Your task to perform on an android device: turn off improve location accuracy Image 0: 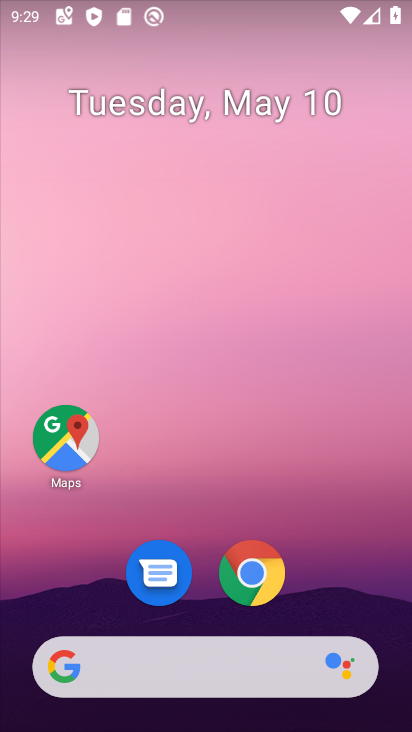
Step 0: drag from (314, 541) to (225, 60)
Your task to perform on an android device: turn off improve location accuracy Image 1: 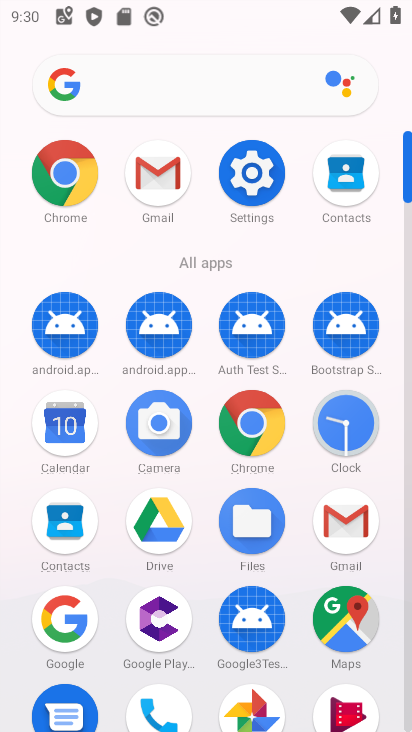
Step 1: click (249, 171)
Your task to perform on an android device: turn off improve location accuracy Image 2: 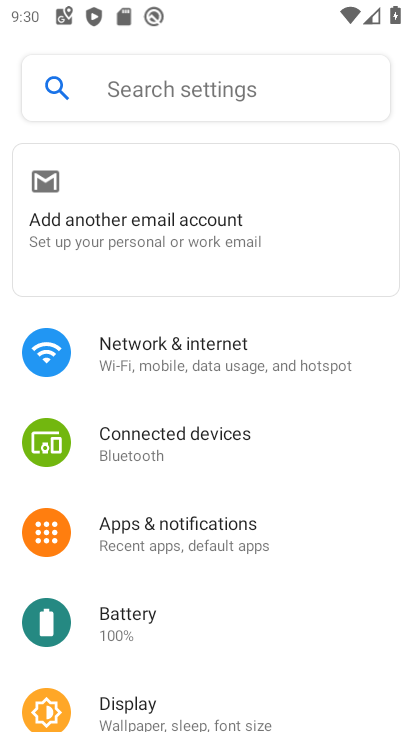
Step 2: drag from (252, 593) to (201, 374)
Your task to perform on an android device: turn off improve location accuracy Image 3: 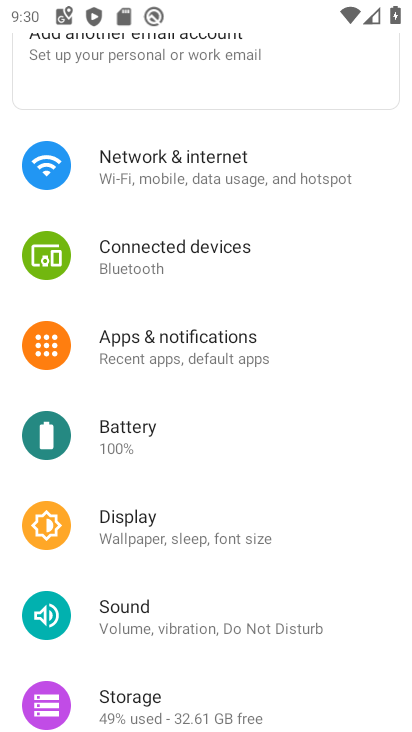
Step 3: drag from (223, 578) to (174, 324)
Your task to perform on an android device: turn off improve location accuracy Image 4: 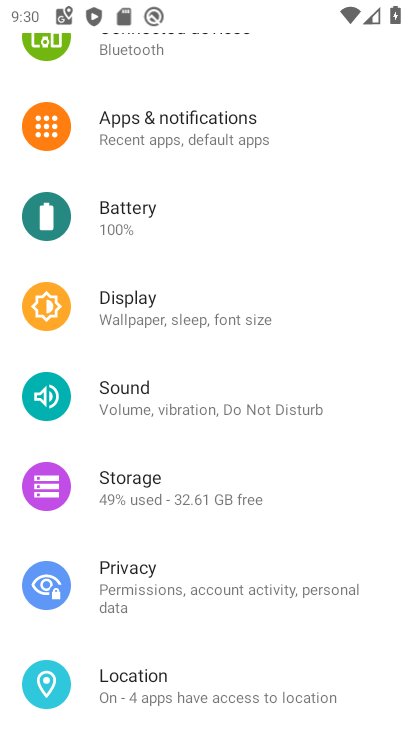
Step 4: drag from (151, 651) to (107, 439)
Your task to perform on an android device: turn off improve location accuracy Image 5: 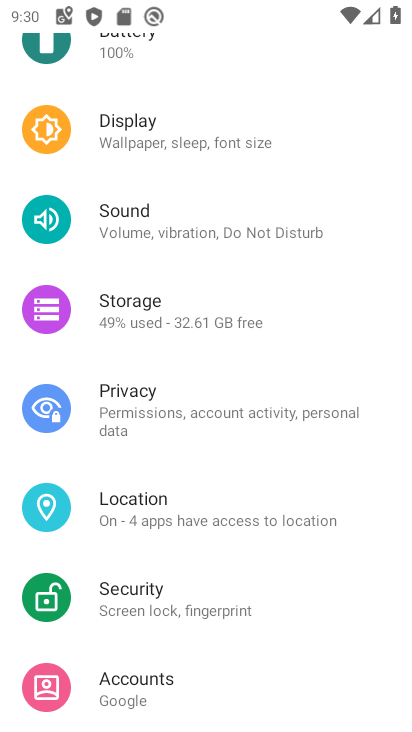
Step 5: click (119, 497)
Your task to perform on an android device: turn off improve location accuracy Image 6: 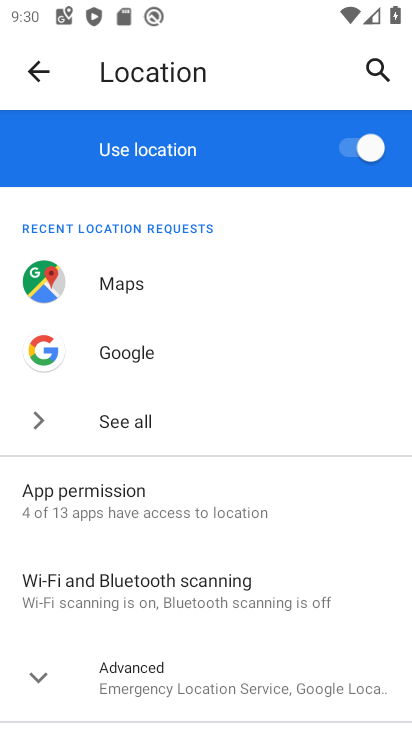
Step 6: drag from (229, 545) to (167, 349)
Your task to perform on an android device: turn off improve location accuracy Image 7: 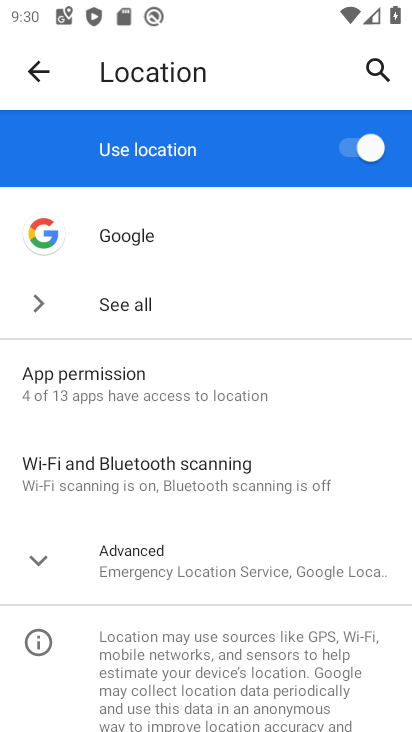
Step 7: click (44, 555)
Your task to perform on an android device: turn off improve location accuracy Image 8: 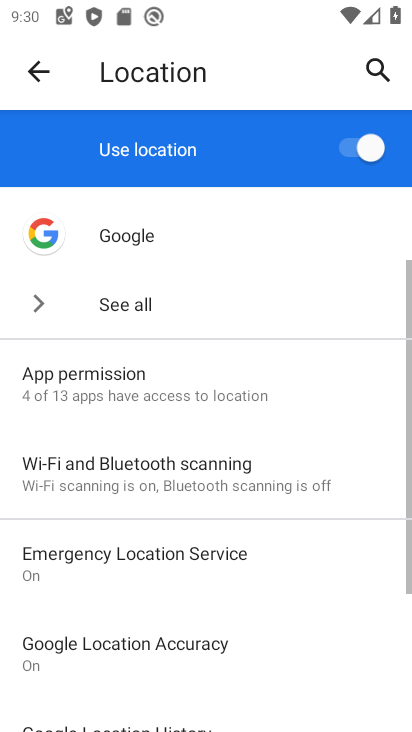
Step 8: drag from (215, 549) to (180, 324)
Your task to perform on an android device: turn off improve location accuracy Image 9: 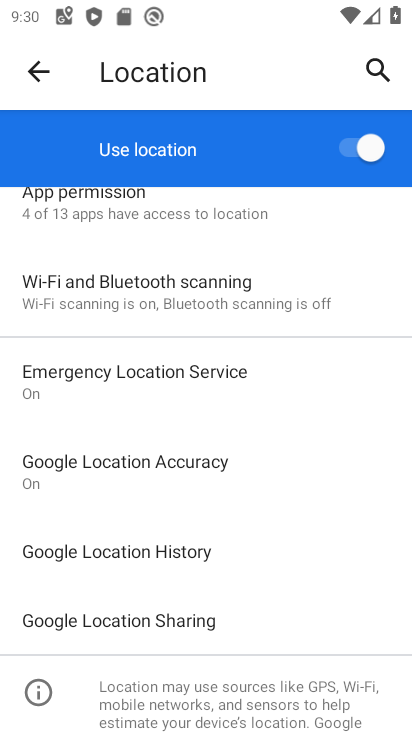
Step 9: click (179, 459)
Your task to perform on an android device: turn off improve location accuracy Image 10: 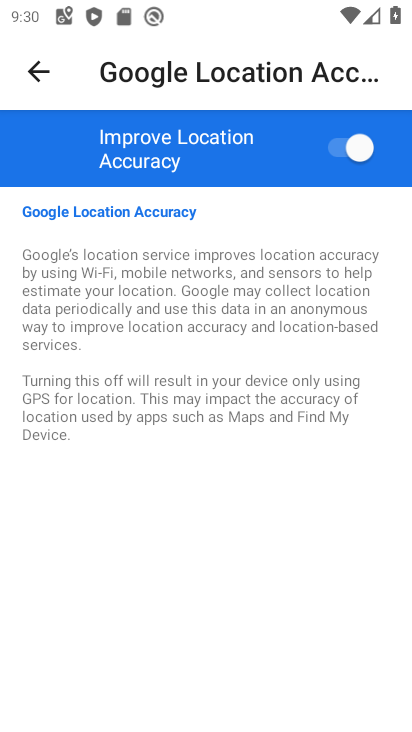
Step 10: click (355, 151)
Your task to perform on an android device: turn off improve location accuracy Image 11: 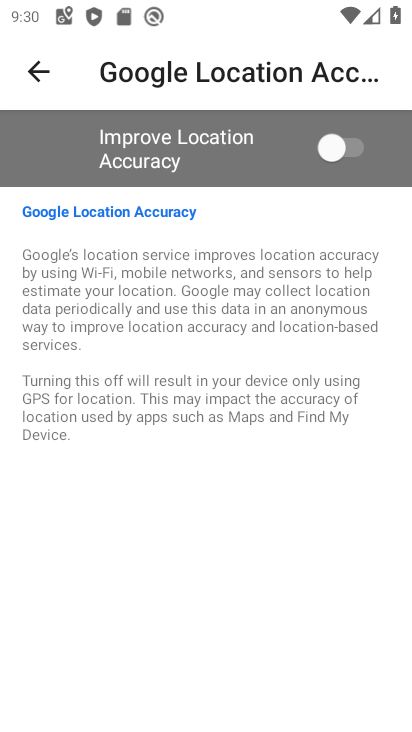
Step 11: task complete